Your task to perform on an android device: open app "Etsy: Buy & Sell Unique Items" (install if not already installed) Image 0: 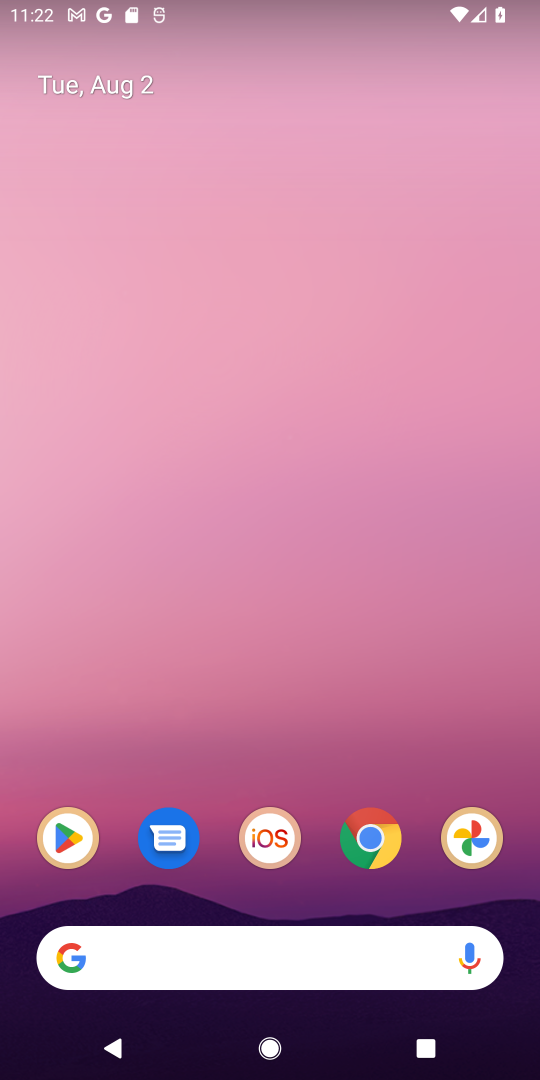
Step 0: click (74, 858)
Your task to perform on an android device: open app "Etsy: Buy & Sell Unique Items" (install if not already installed) Image 1: 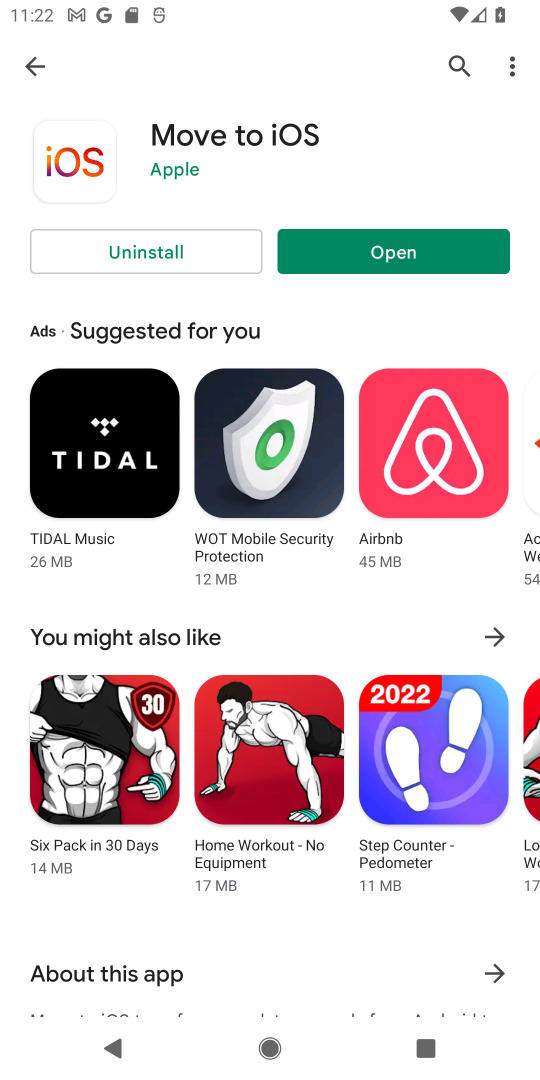
Step 1: click (461, 77)
Your task to perform on an android device: open app "Etsy: Buy & Sell Unique Items" (install if not already installed) Image 2: 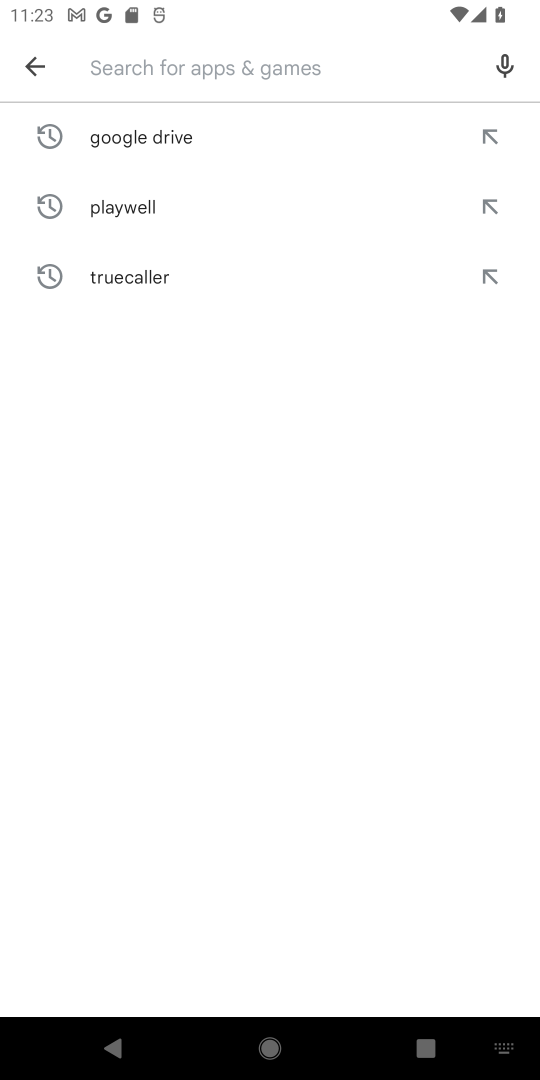
Step 2: type "Etsy: Buy & Sell Unique Items"
Your task to perform on an android device: open app "Etsy: Buy & Sell Unique Items" (install if not already installed) Image 3: 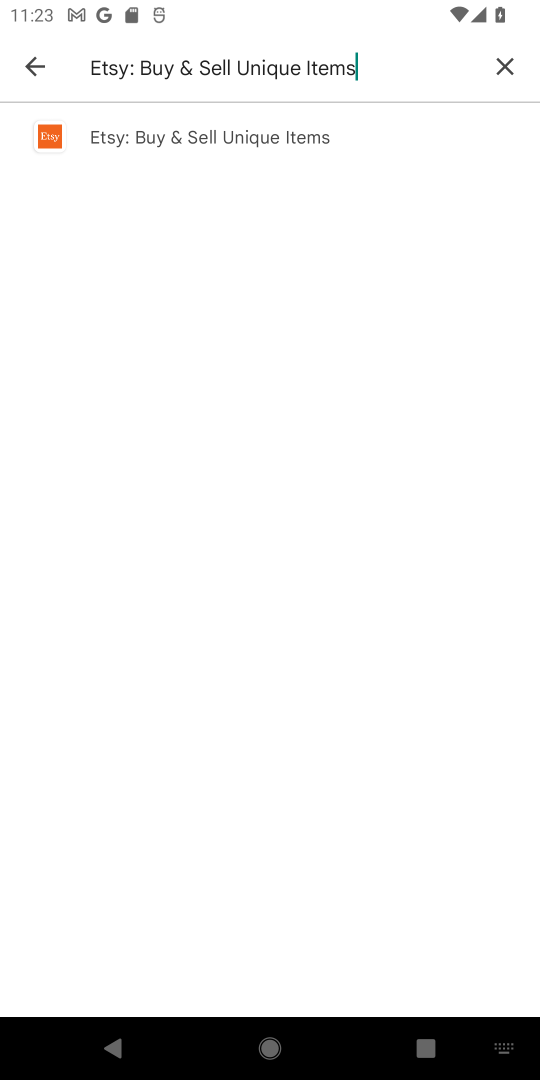
Step 3: click (187, 148)
Your task to perform on an android device: open app "Etsy: Buy & Sell Unique Items" (install if not already installed) Image 4: 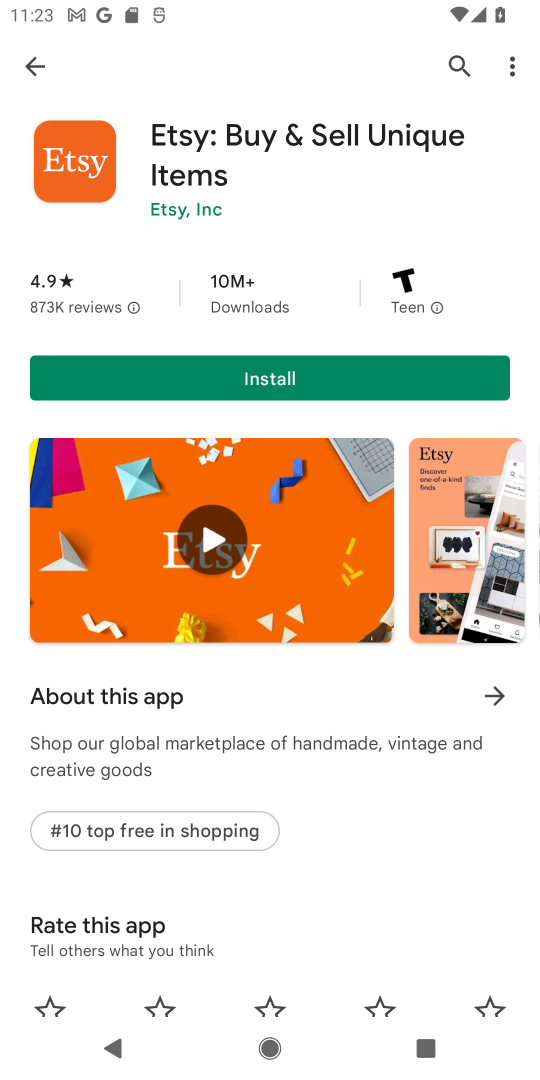
Step 4: click (322, 387)
Your task to perform on an android device: open app "Etsy: Buy & Sell Unique Items" (install if not already installed) Image 5: 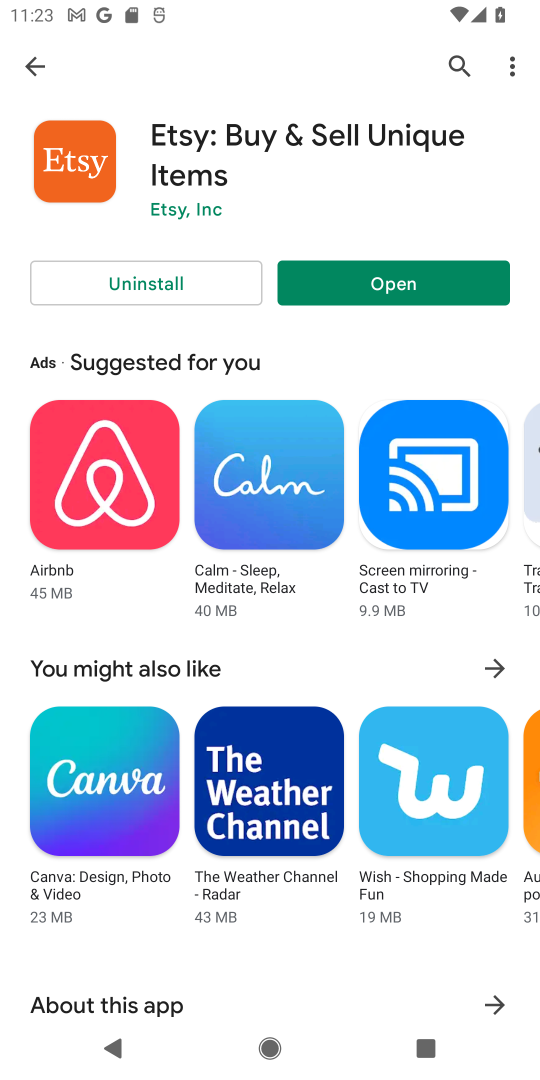
Step 5: click (369, 283)
Your task to perform on an android device: open app "Etsy: Buy & Sell Unique Items" (install if not already installed) Image 6: 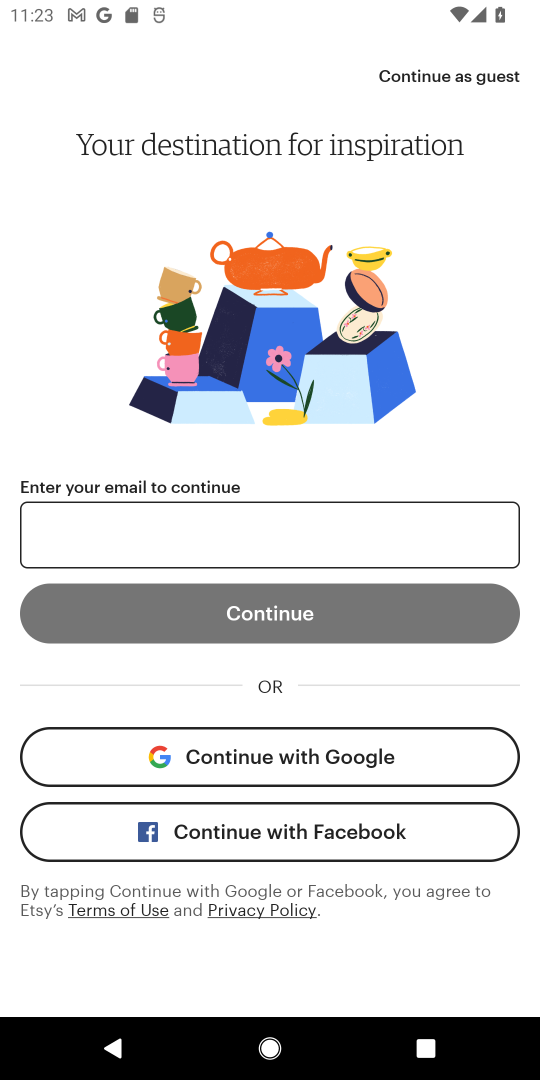
Step 6: task complete